Your task to perform on an android device: toggle show notifications on the lock screen Image 0: 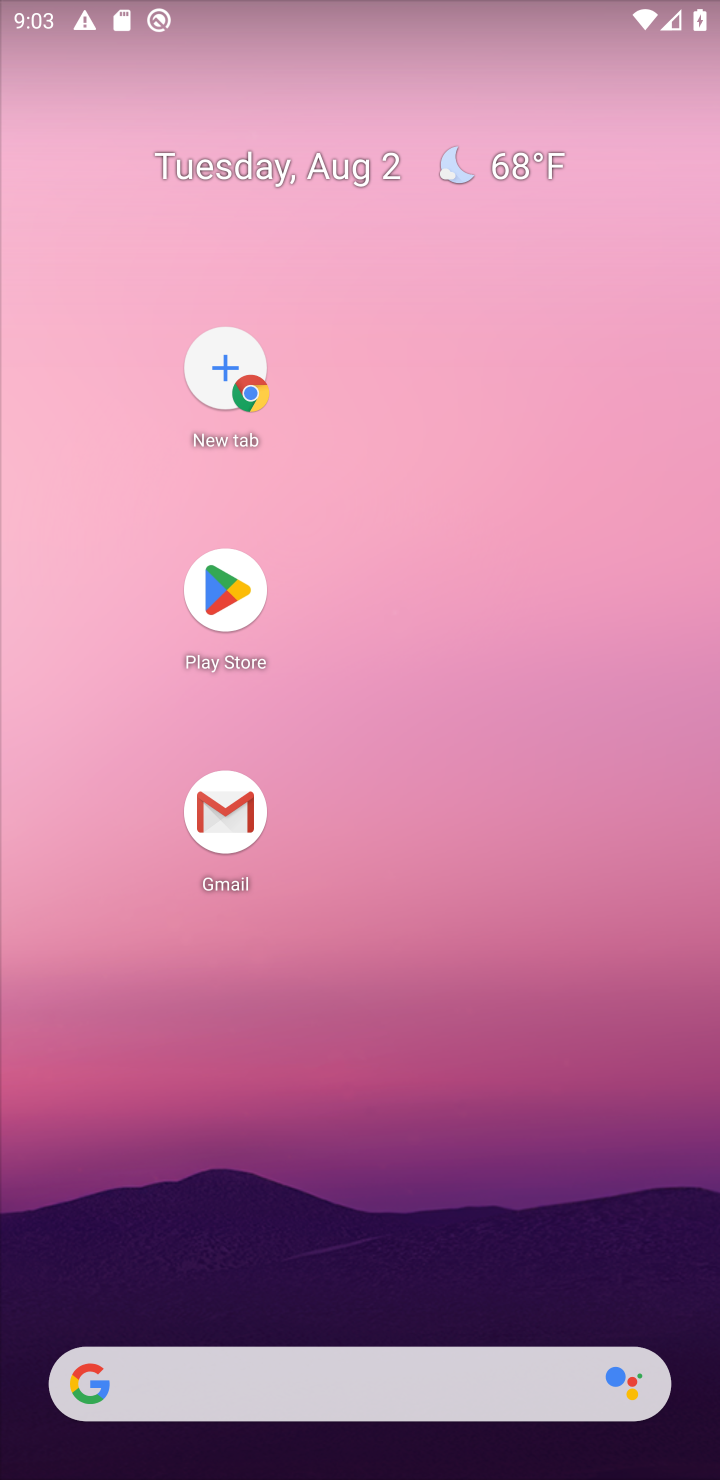
Step 0: drag from (309, 1147) to (232, 648)
Your task to perform on an android device: toggle show notifications on the lock screen Image 1: 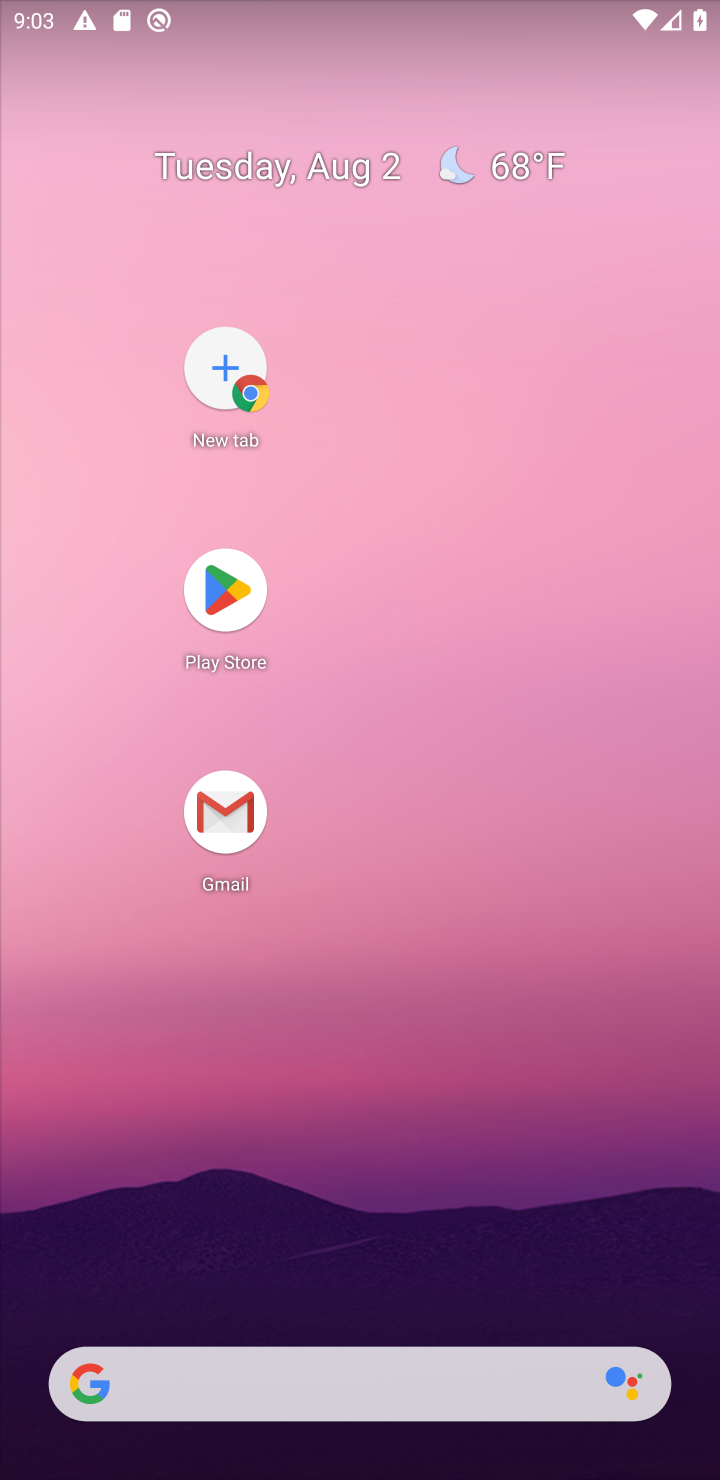
Step 1: drag from (422, 680) to (360, 367)
Your task to perform on an android device: toggle show notifications on the lock screen Image 2: 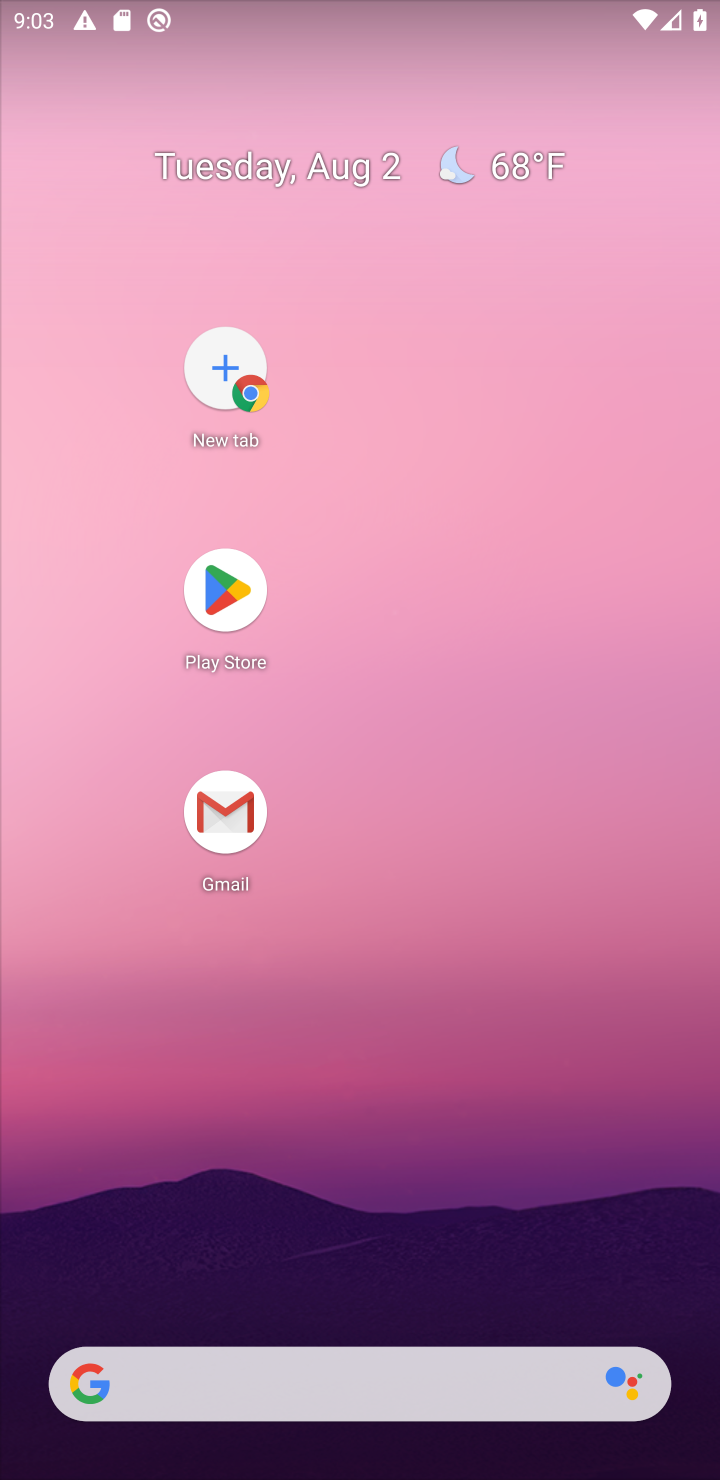
Step 2: drag from (419, 835) to (348, 335)
Your task to perform on an android device: toggle show notifications on the lock screen Image 3: 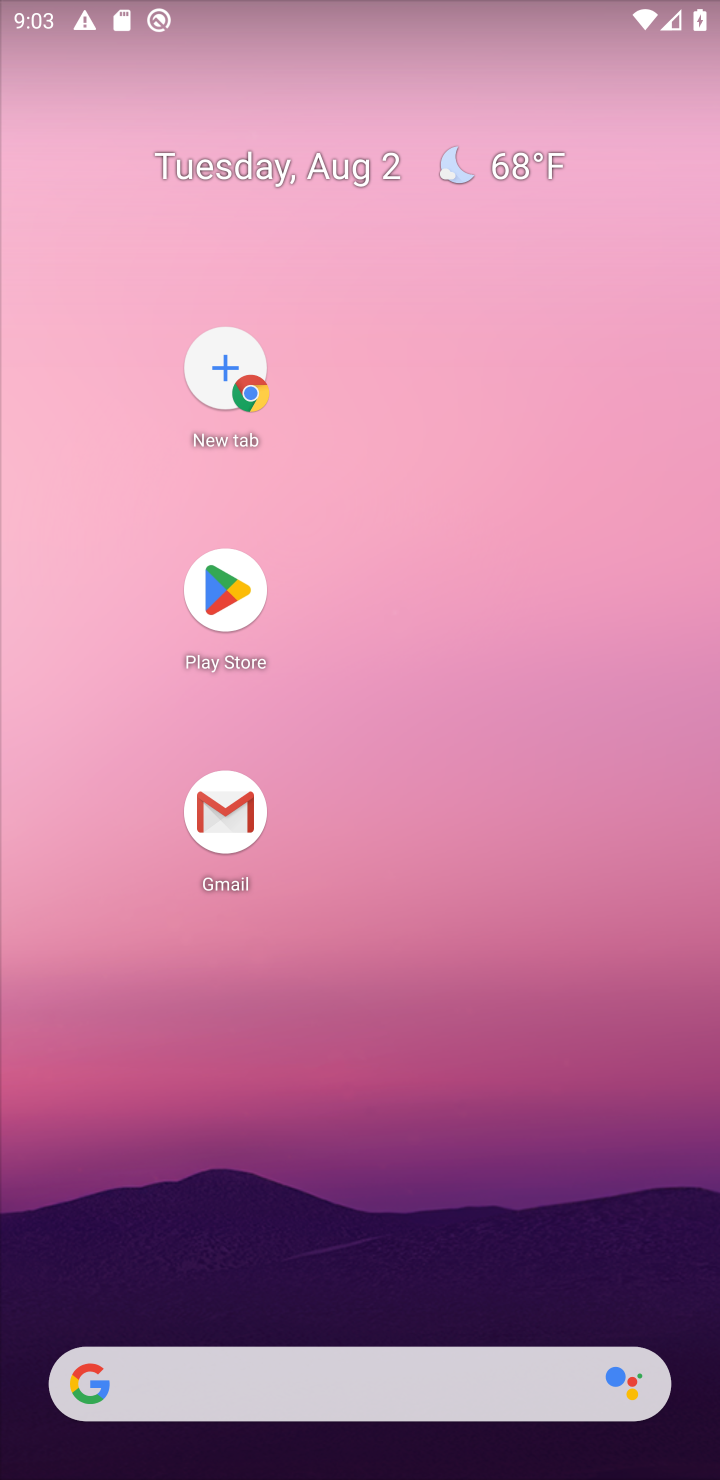
Step 3: drag from (304, 951) to (208, 607)
Your task to perform on an android device: toggle show notifications on the lock screen Image 4: 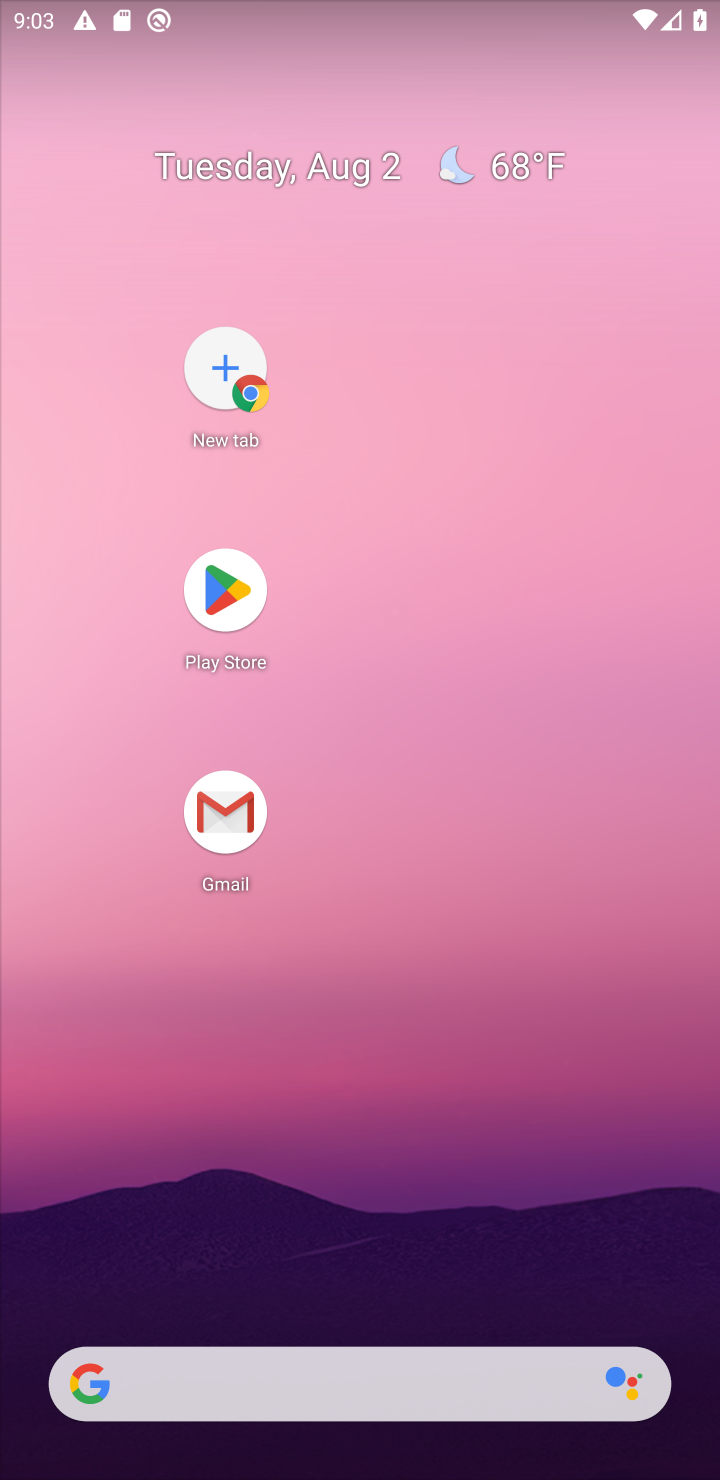
Step 4: drag from (443, 1040) to (470, 11)
Your task to perform on an android device: toggle show notifications on the lock screen Image 5: 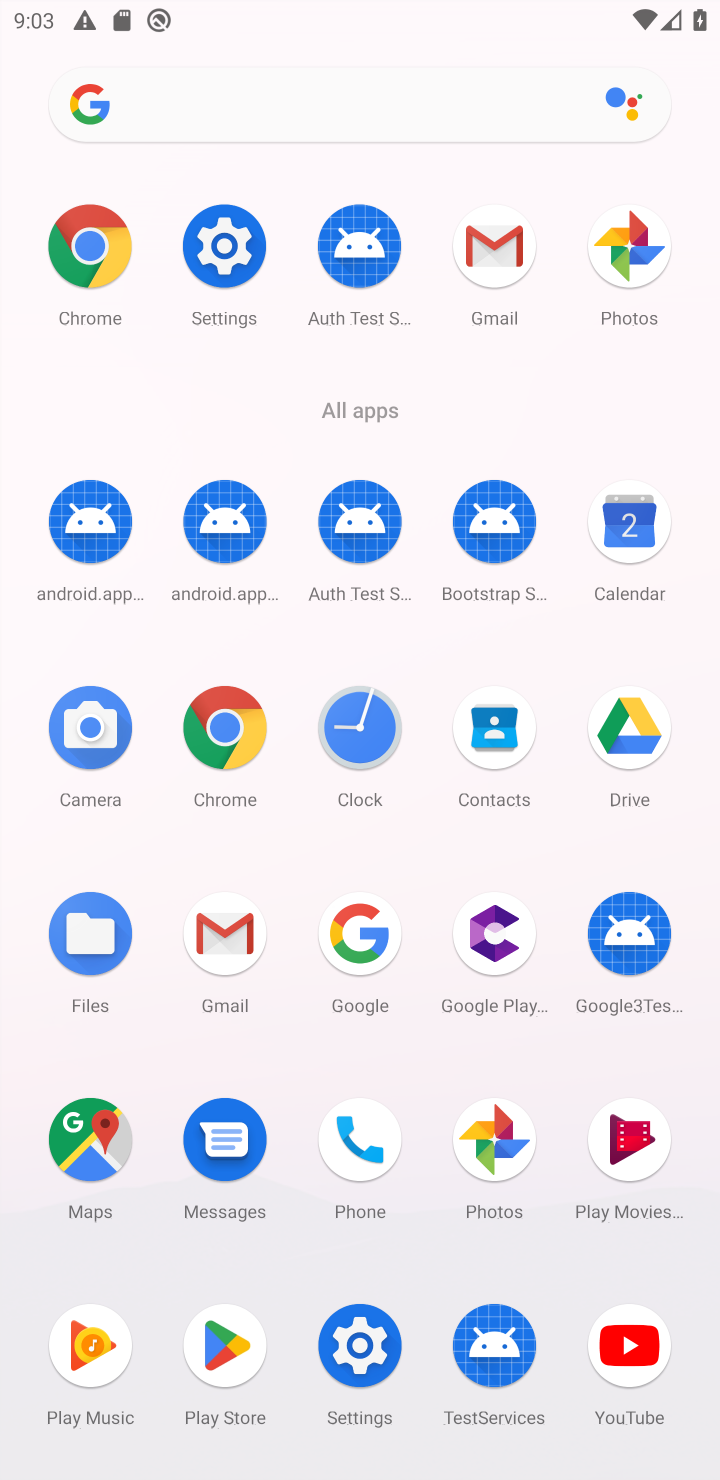
Step 5: click (221, 258)
Your task to perform on an android device: toggle show notifications on the lock screen Image 6: 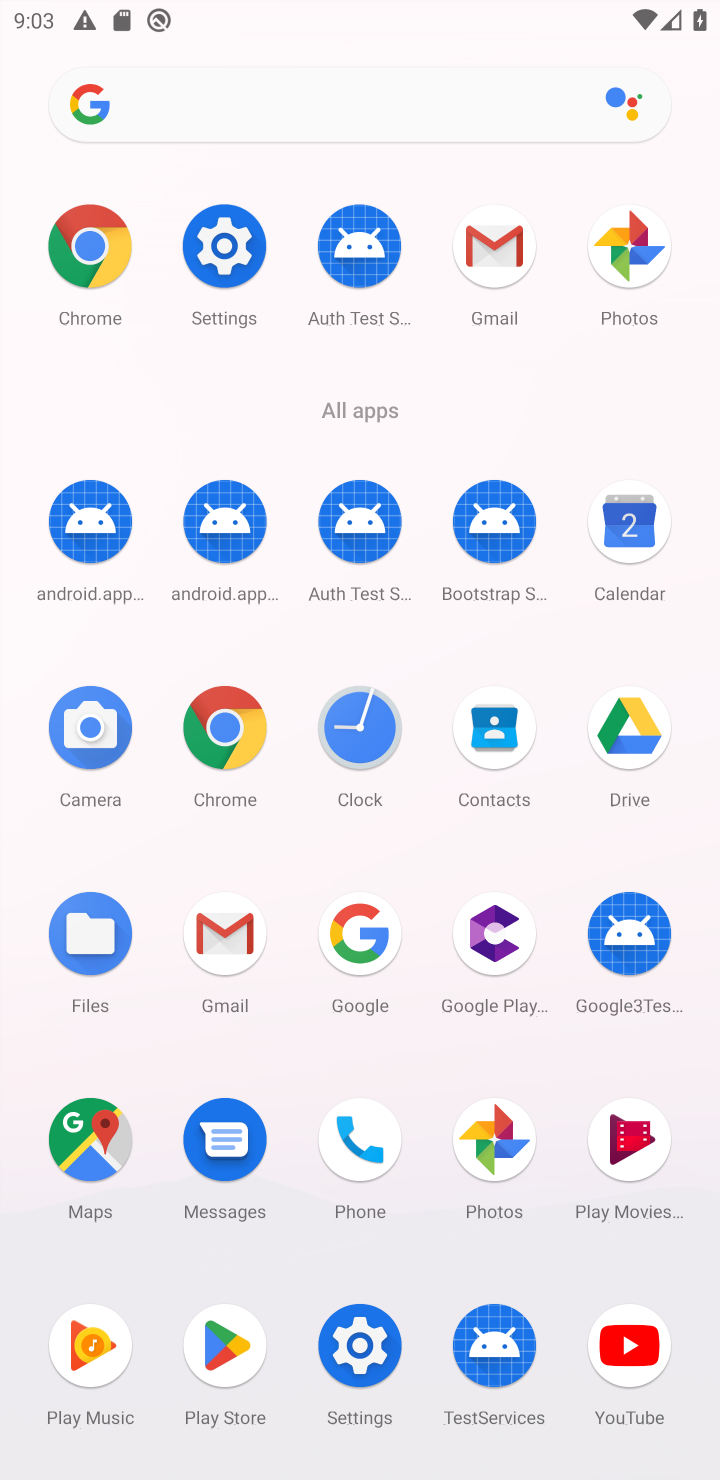
Step 6: click (220, 258)
Your task to perform on an android device: toggle show notifications on the lock screen Image 7: 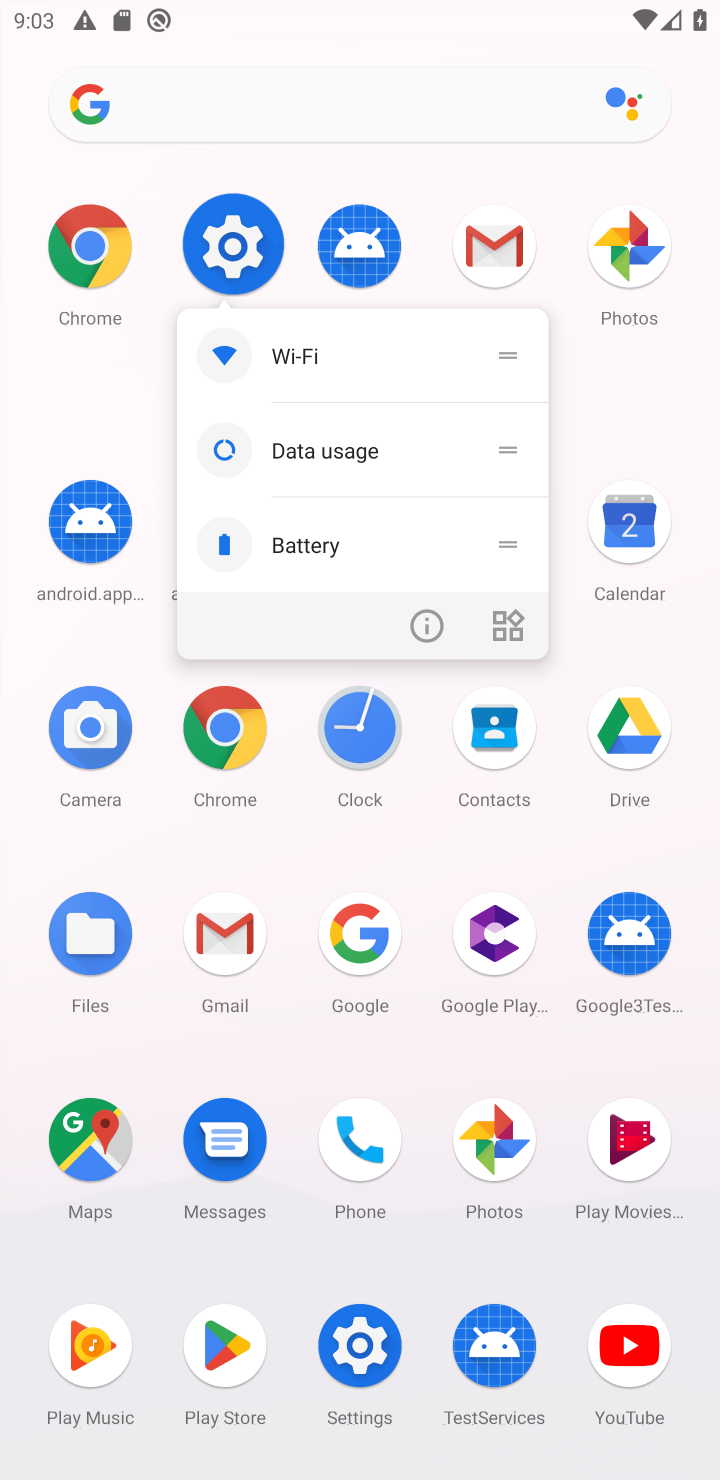
Step 7: click (229, 252)
Your task to perform on an android device: toggle show notifications on the lock screen Image 8: 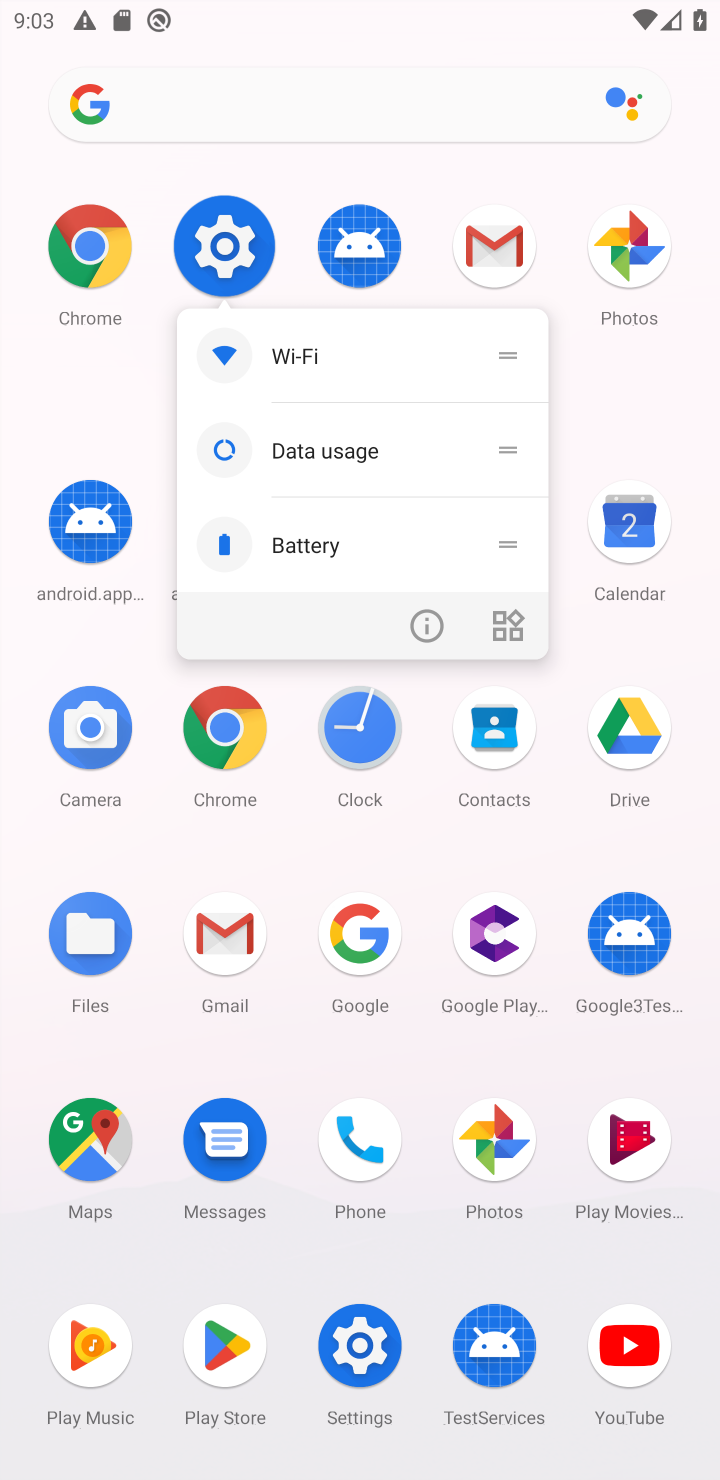
Step 8: click (235, 237)
Your task to perform on an android device: toggle show notifications on the lock screen Image 9: 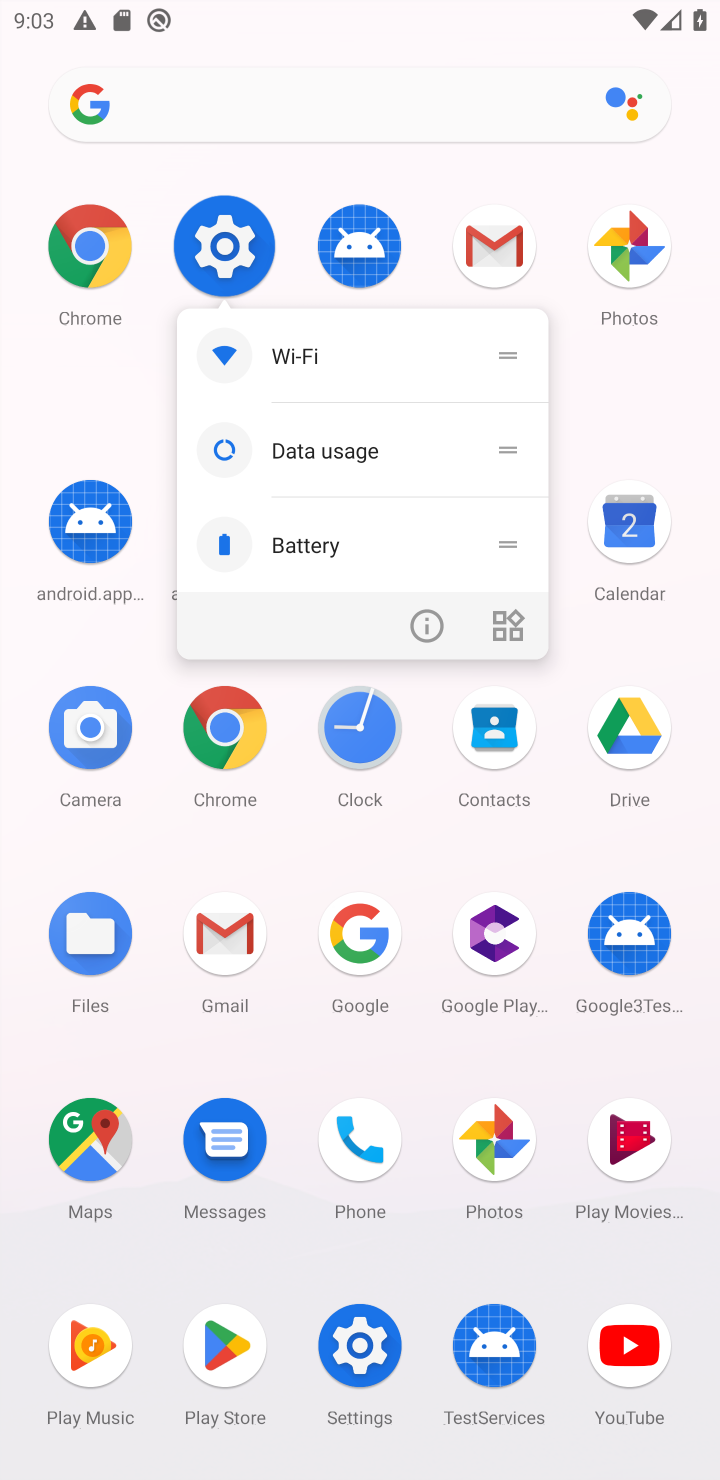
Step 9: click (235, 244)
Your task to perform on an android device: toggle show notifications on the lock screen Image 10: 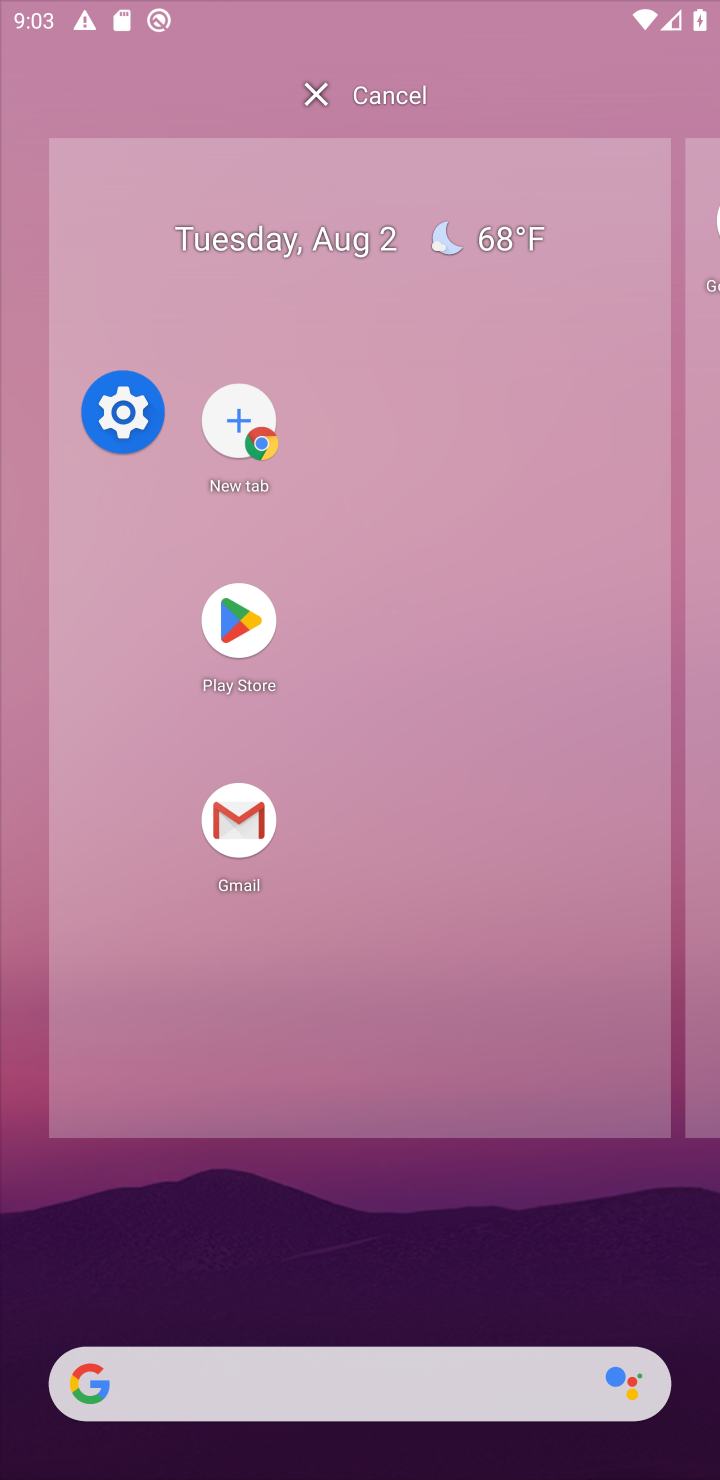
Step 10: click (235, 249)
Your task to perform on an android device: toggle show notifications on the lock screen Image 11: 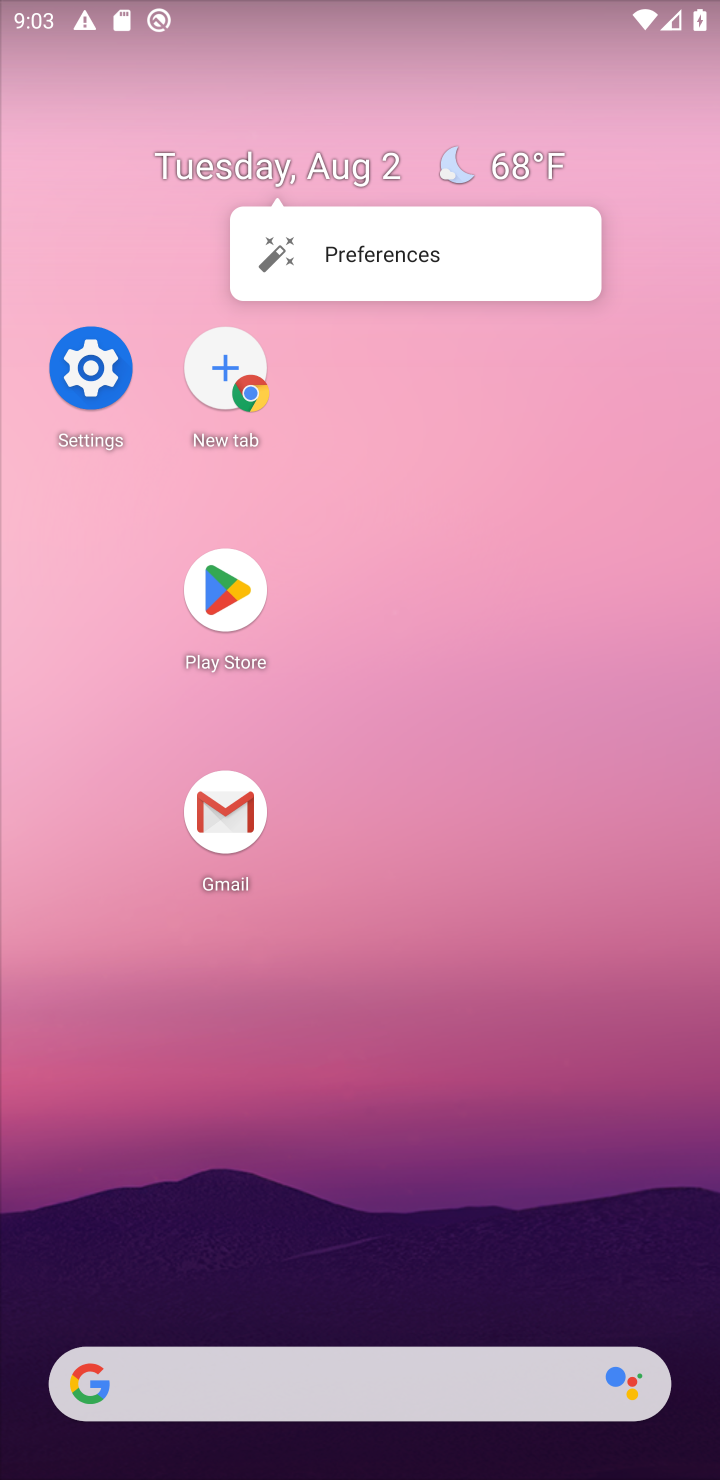
Step 11: click (92, 373)
Your task to perform on an android device: toggle show notifications on the lock screen Image 12: 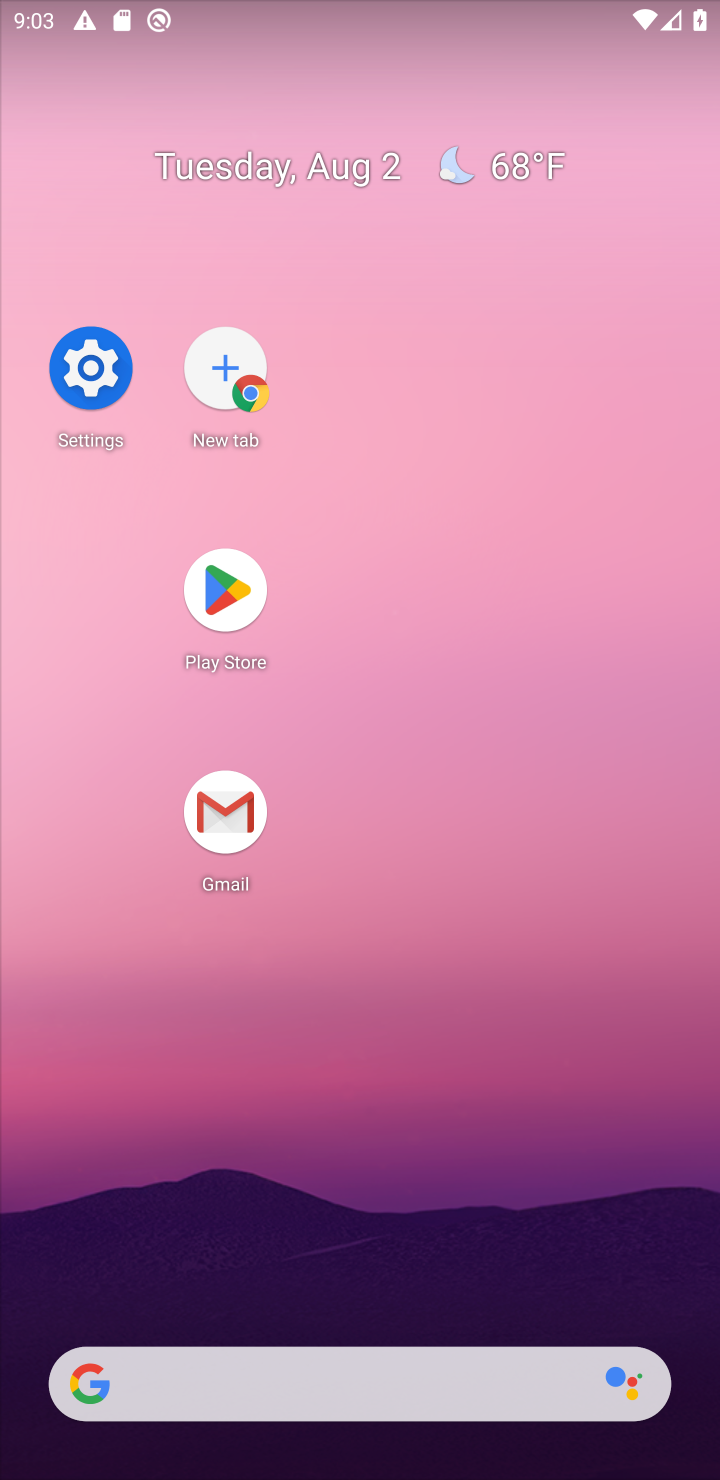
Step 12: drag from (224, 890) to (85, 287)
Your task to perform on an android device: toggle show notifications on the lock screen Image 13: 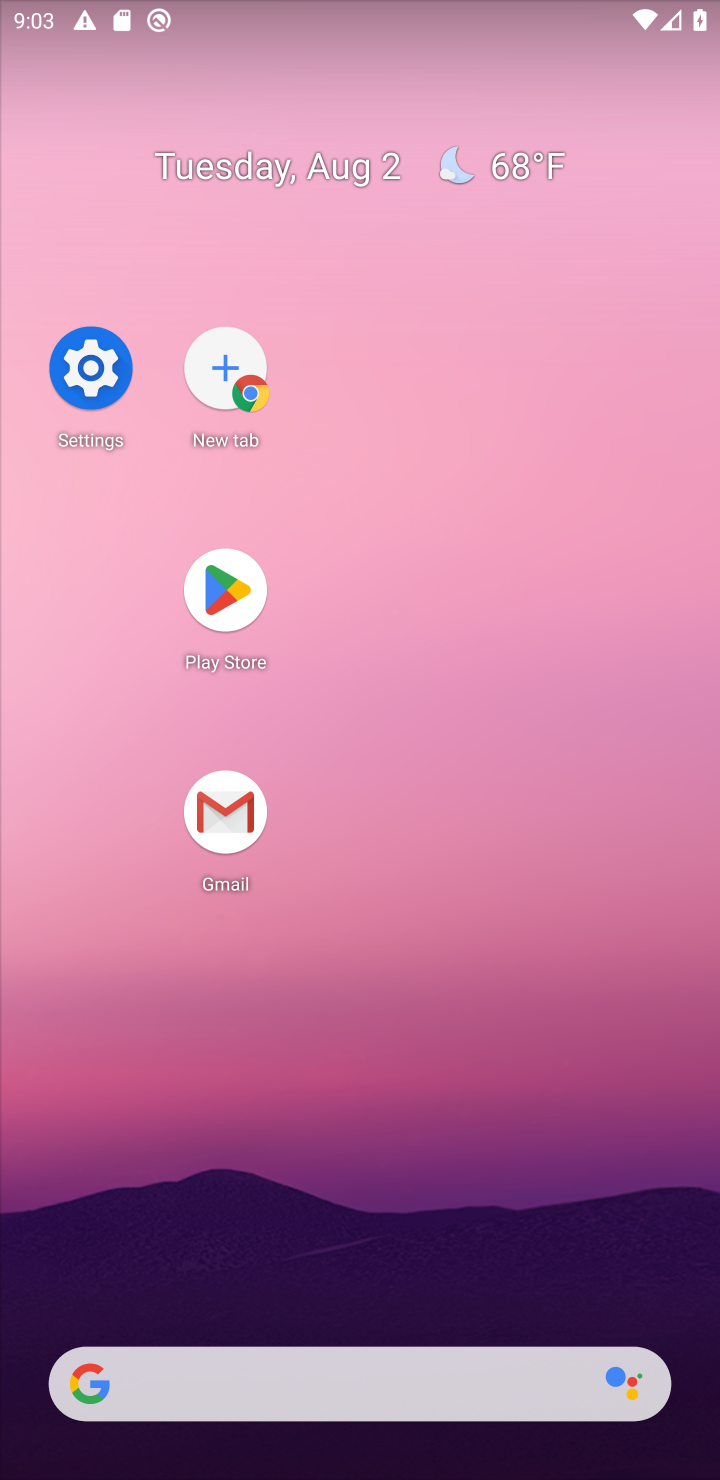
Step 13: drag from (401, 511) to (401, 380)
Your task to perform on an android device: toggle show notifications on the lock screen Image 14: 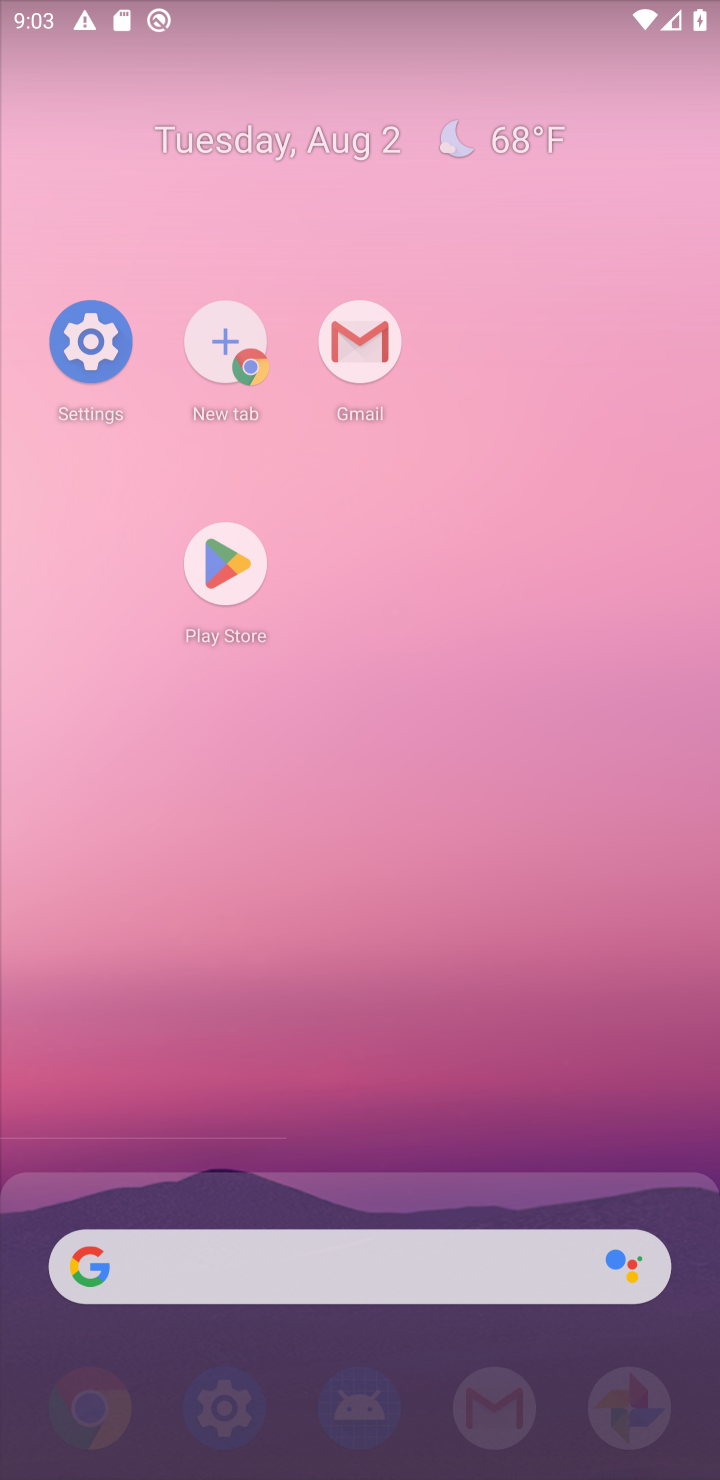
Step 14: drag from (354, 901) to (269, 36)
Your task to perform on an android device: toggle show notifications on the lock screen Image 15: 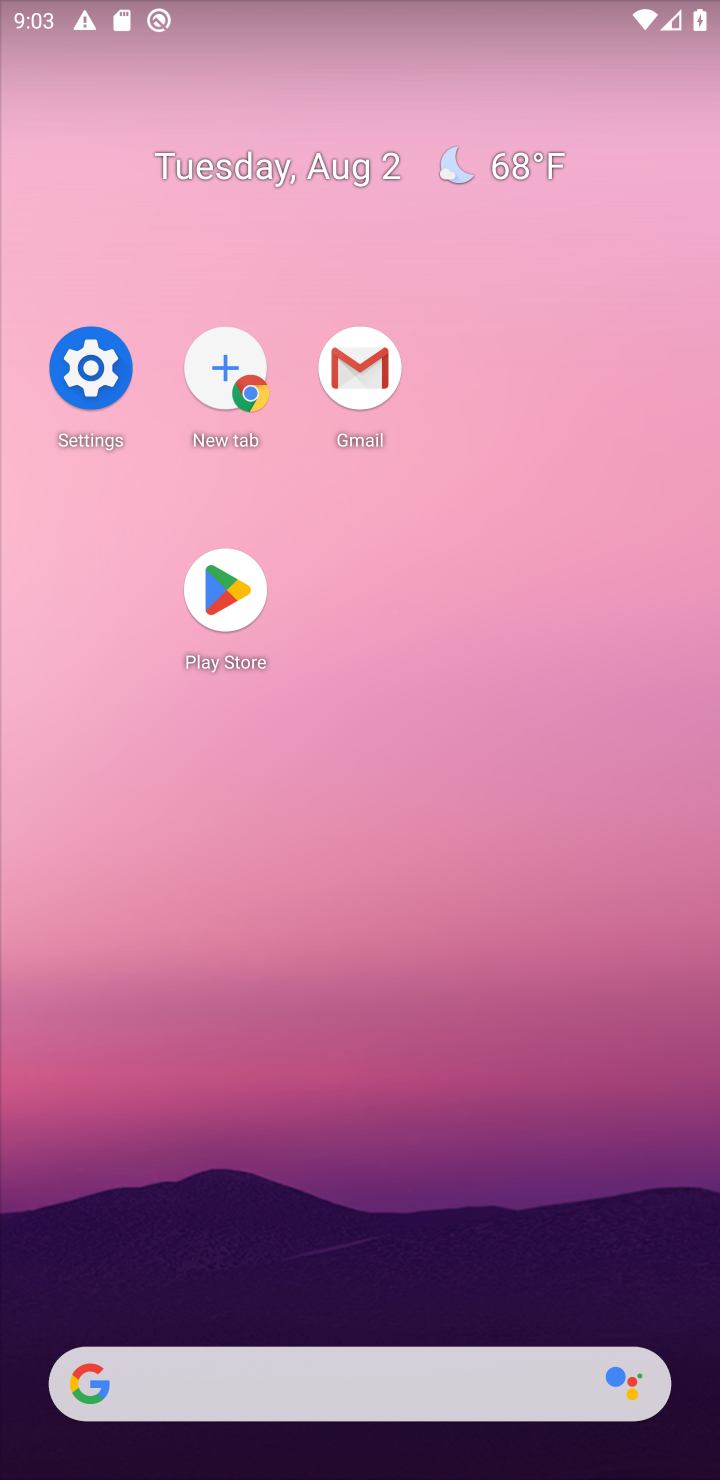
Step 15: click (407, 141)
Your task to perform on an android device: toggle show notifications on the lock screen Image 16: 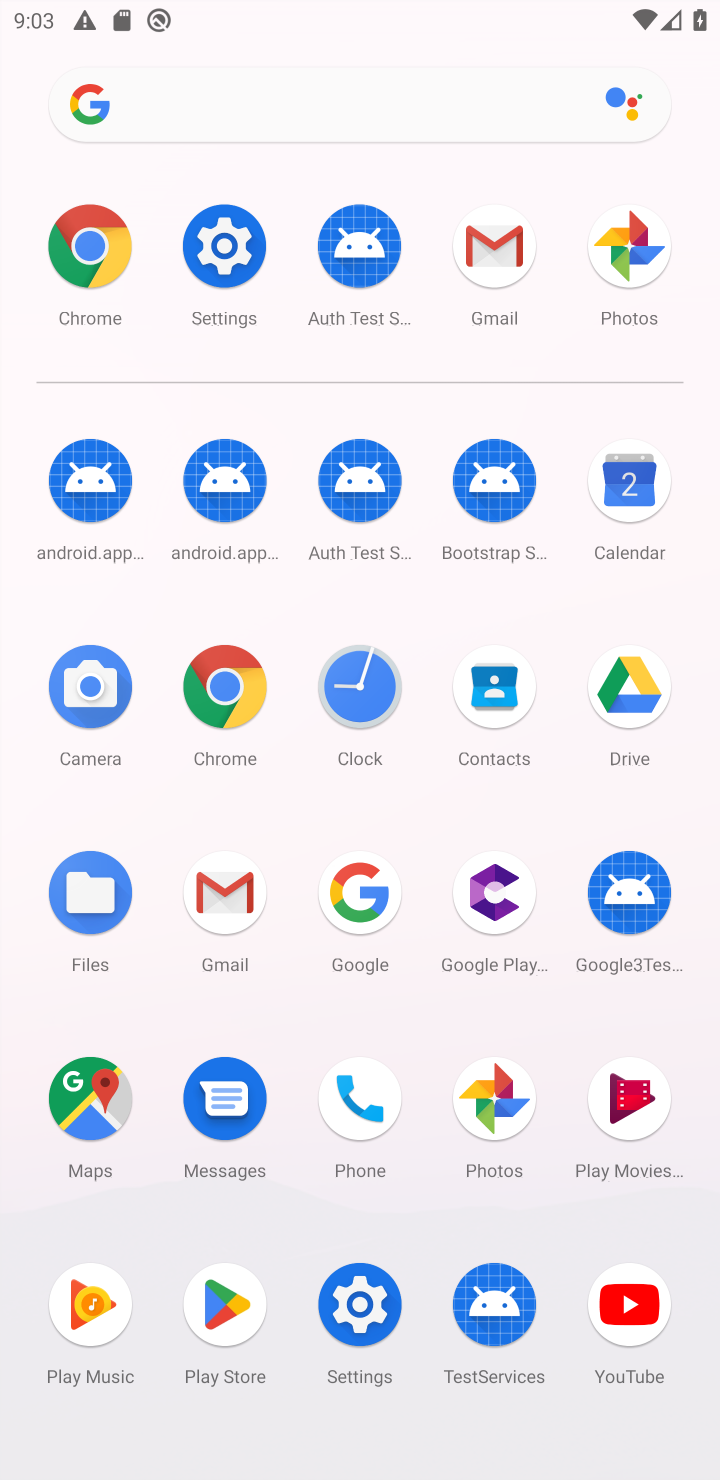
Step 16: click (225, 252)
Your task to perform on an android device: toggle show notifications on the lock screen Image 17: 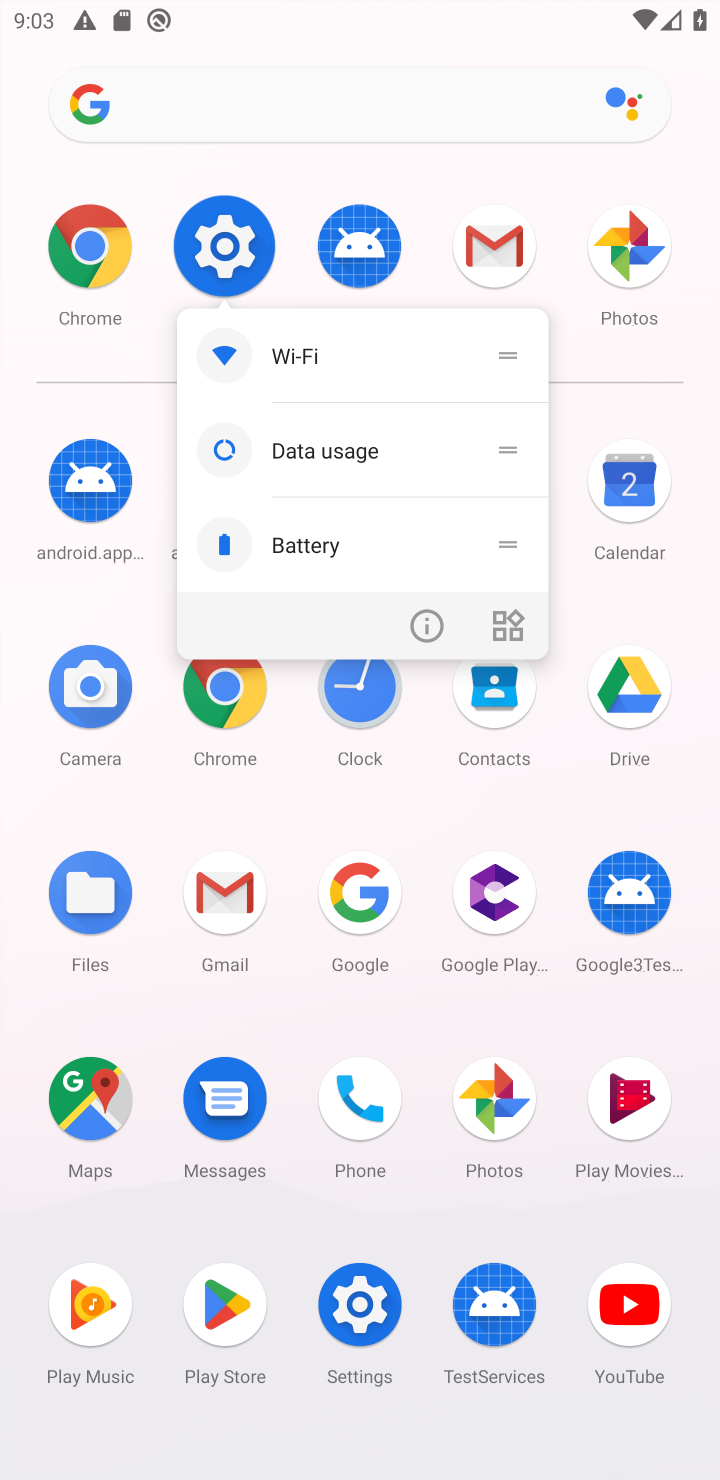
Step 17: click (225, 248)
Your task to perform on an android device: toggle show notifications on the lock screen Image 18: 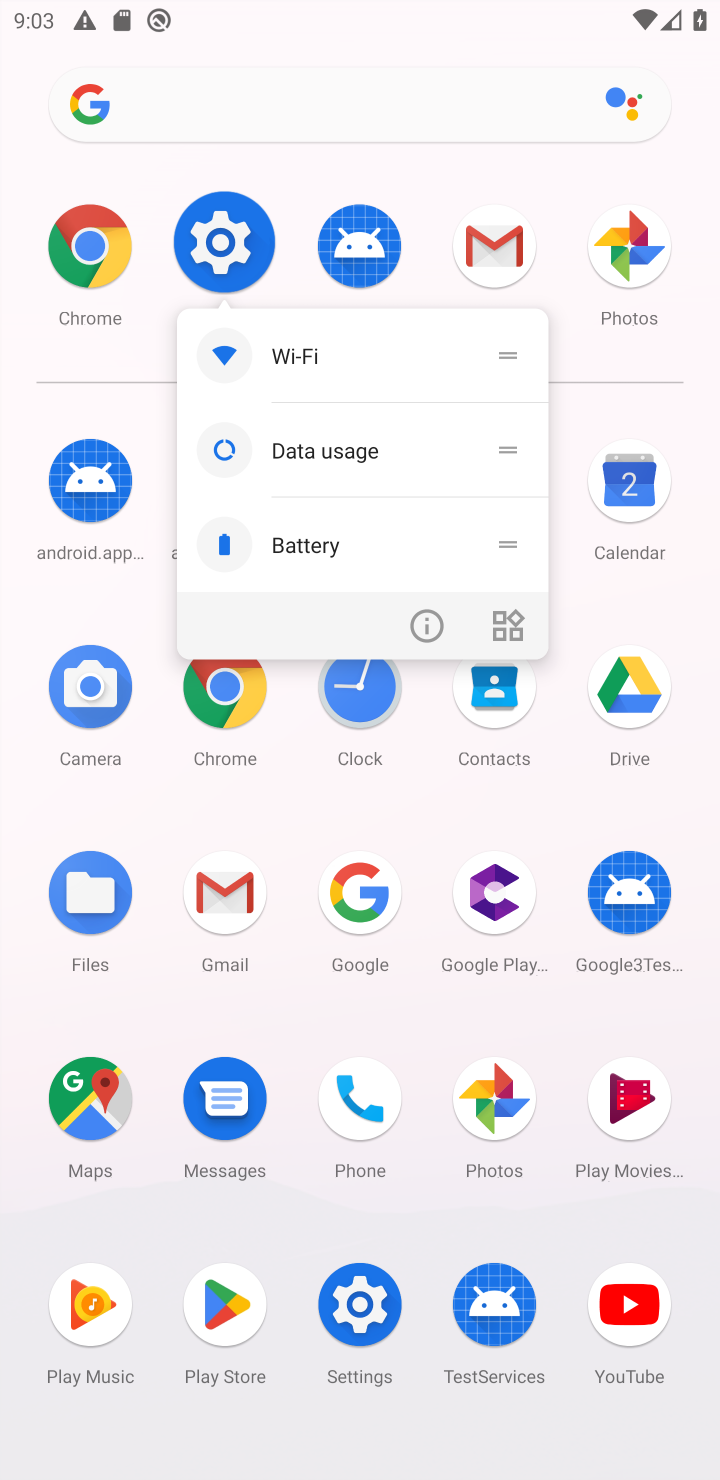
Step 18: click (304, 340)
Your task to perform on an android device: toggle show notifications on the lock screen Image 19: 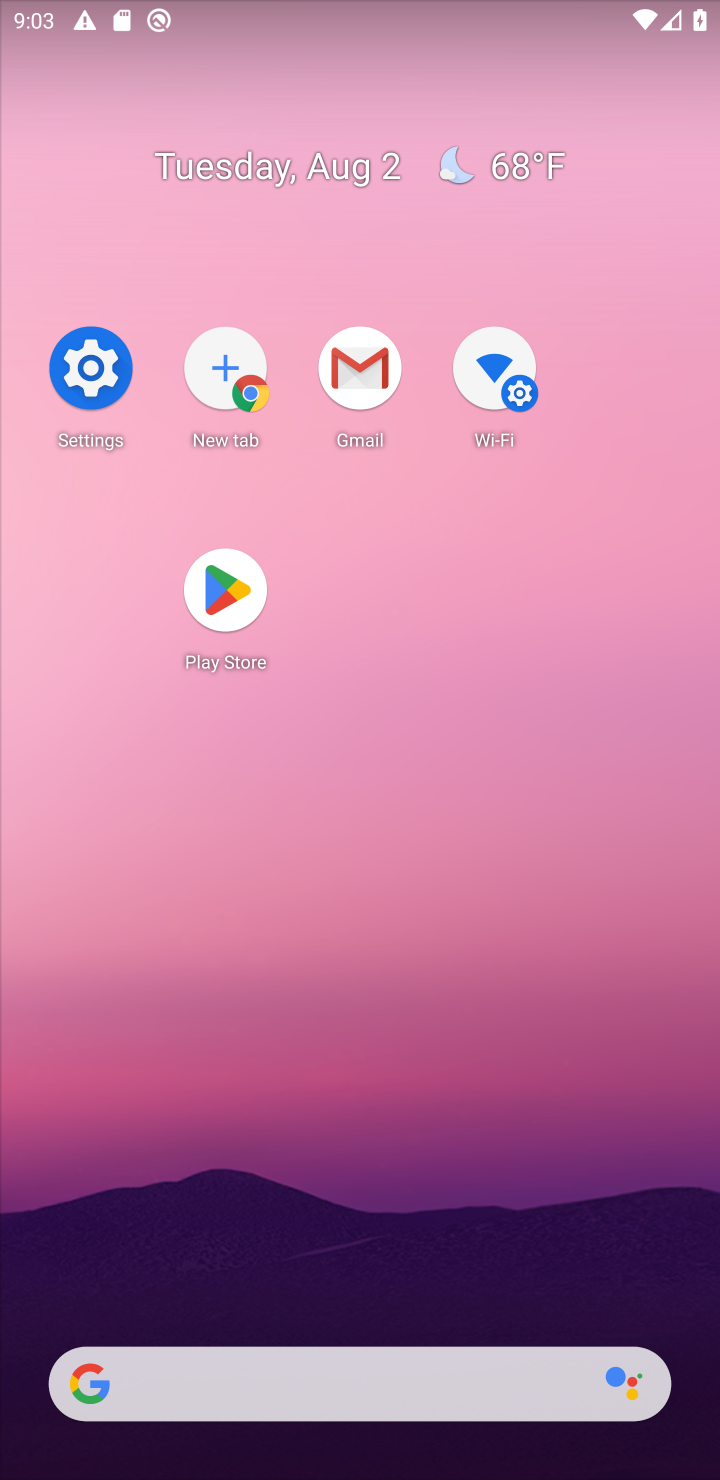
Step 19: drag from (376, 1064) to (330, 307)
Your task to perform on an android device: toggle show notifications on the lock screen Image 20: 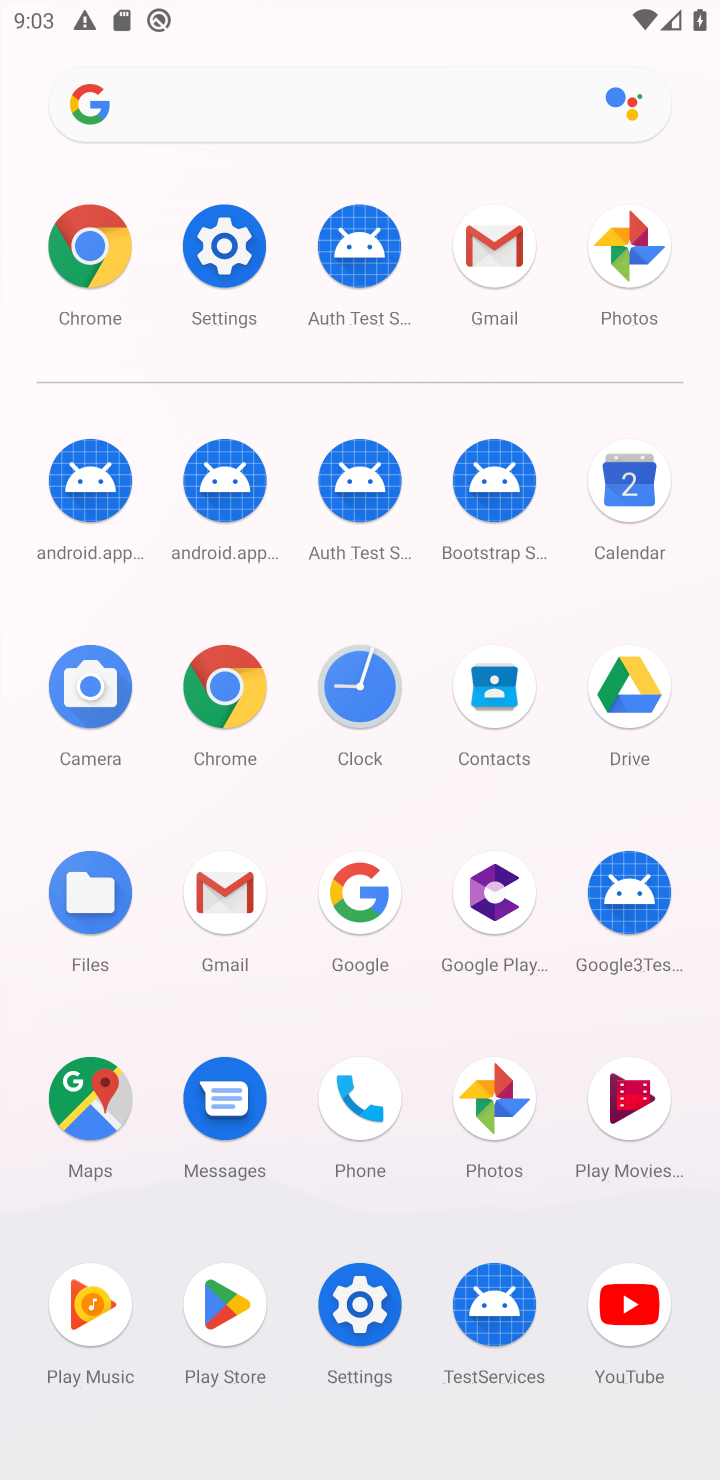
Step 20: click (239, 266)
Your task to perform on an android device: toggle show notifications on the lock screen Image 21: 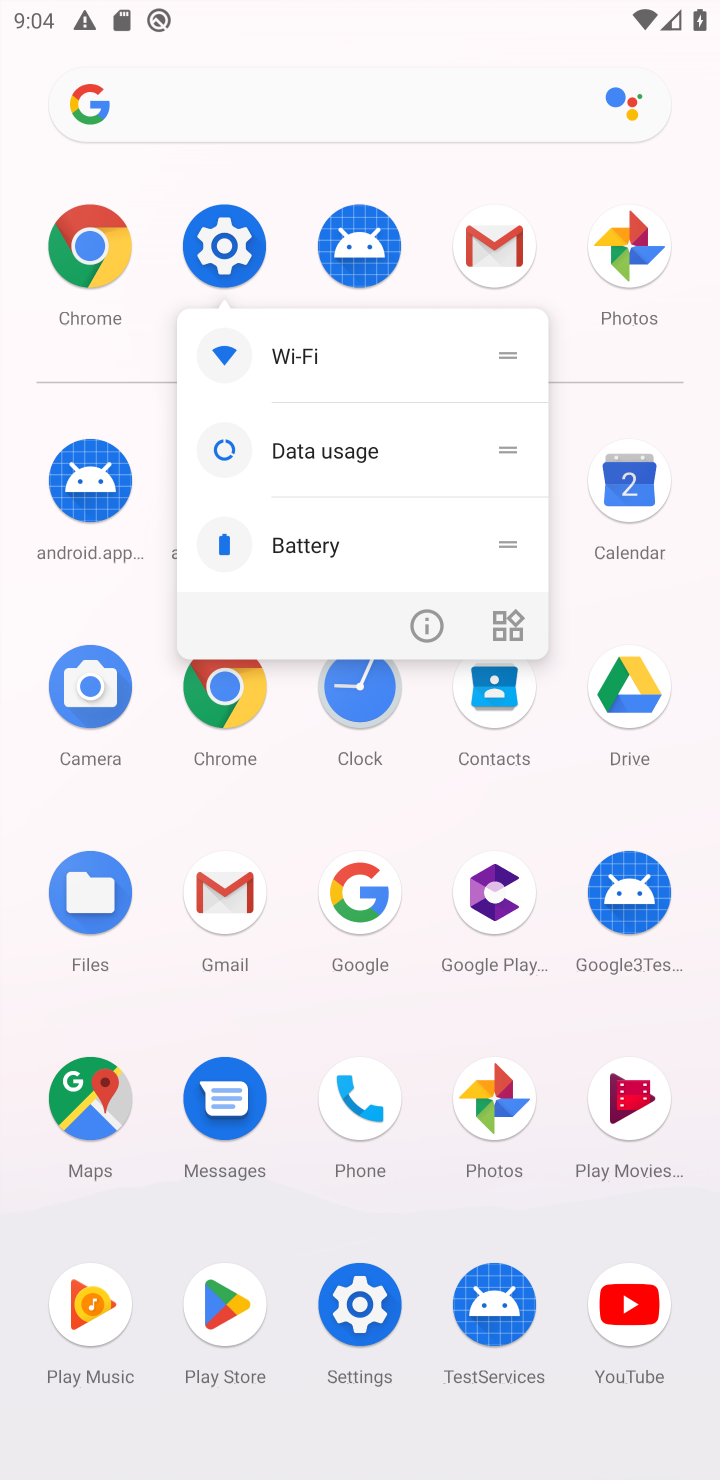
Step 21: click (239, 259)
Your task to perform on an android device: toggle show notifications on the lock screen Image 22: 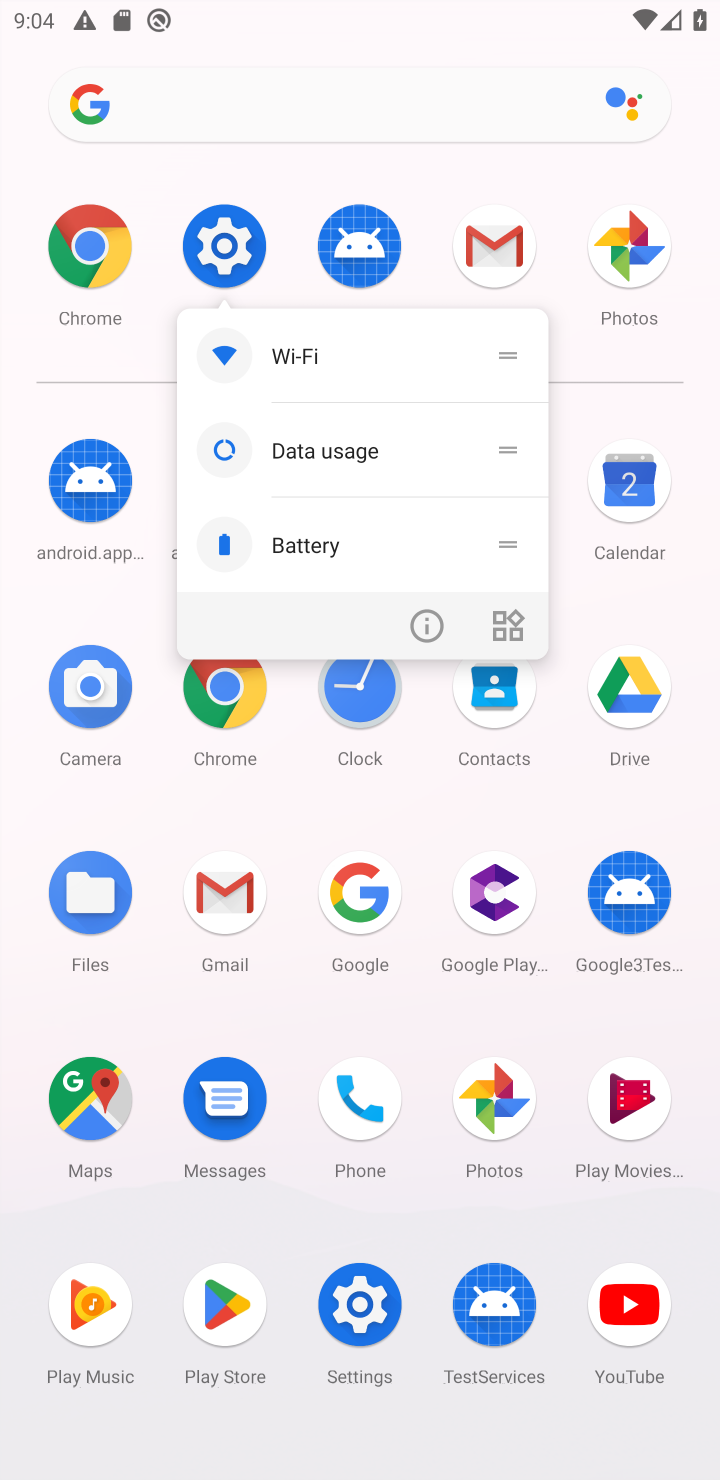
Step 22: click (240, 257)
Your task to perform on an android device: toggle show notifications on the lock screen Image 23: 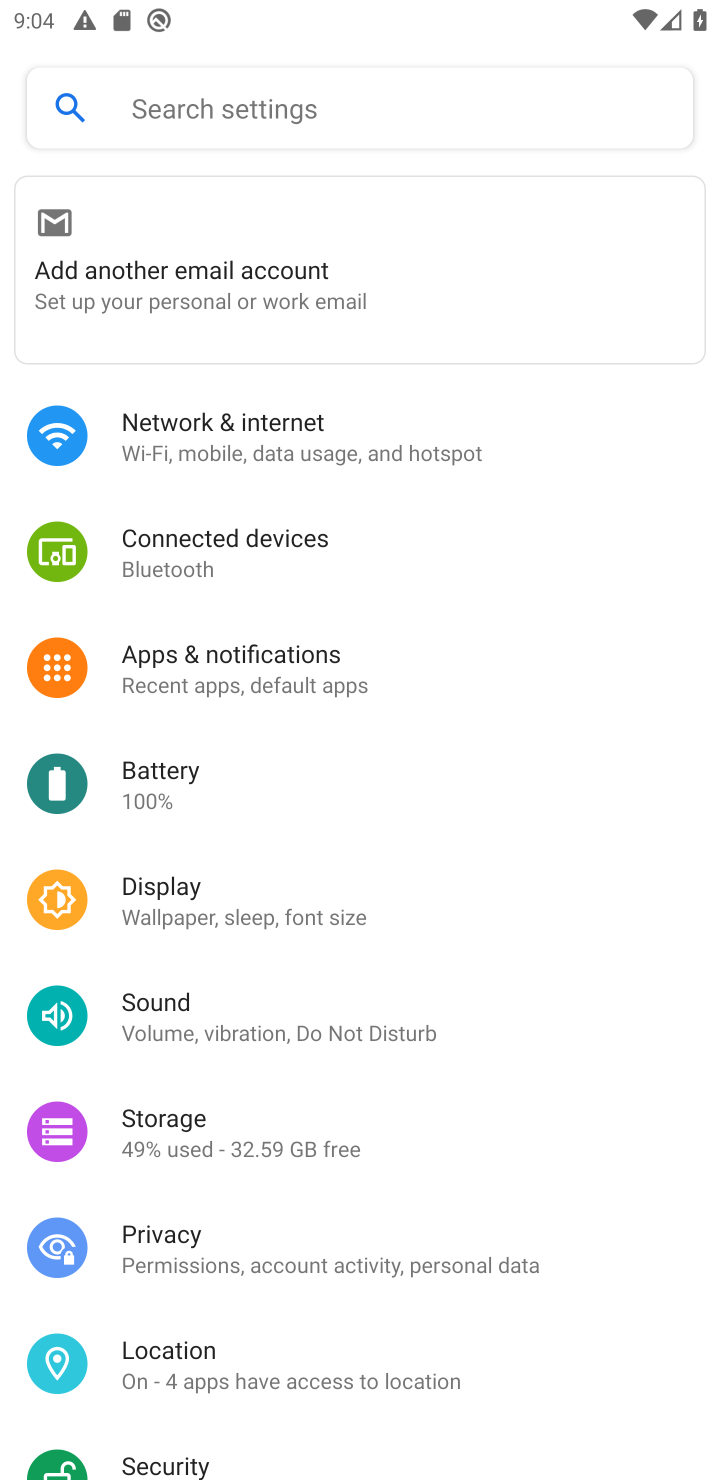
Step 23: drag from (275, 1297) to (180, 626)
Your task to perform on an android device: toggle show notifications on the lock screen Image 24: 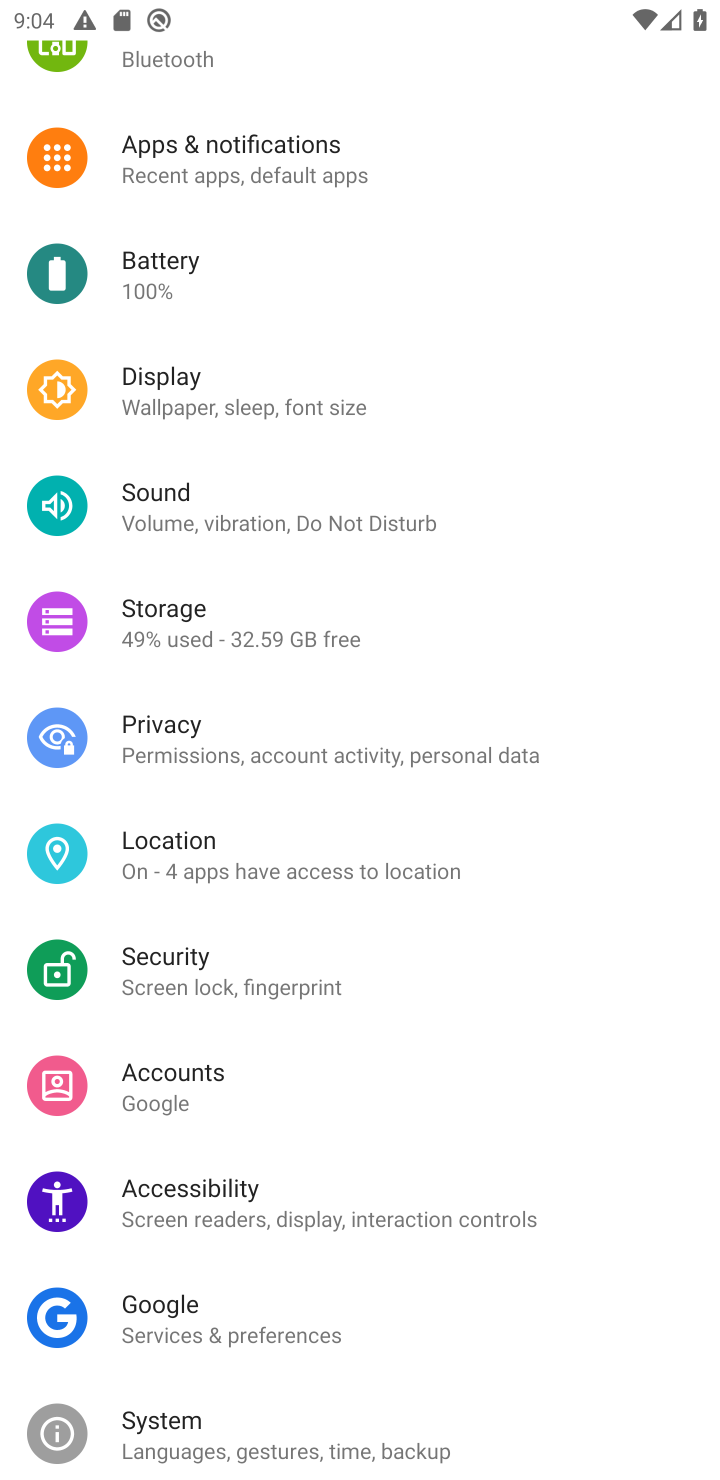
Step 24: click (216, 169)
Your task to perform on an android device: toggle show notifications on the lock screen Image 25: 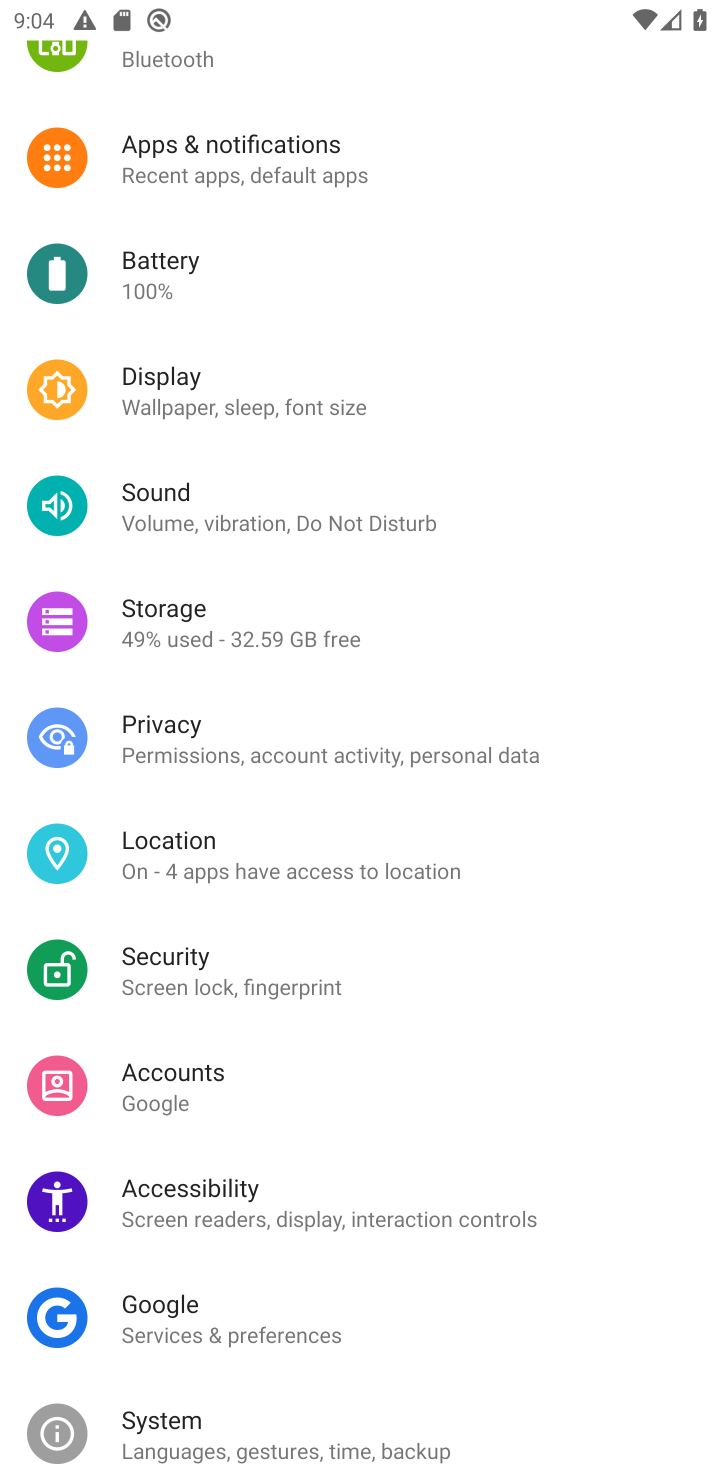
Step 25: click (218, 168)
Your task to perform on an android device: toggle show notifications on the lock screen Image 26: 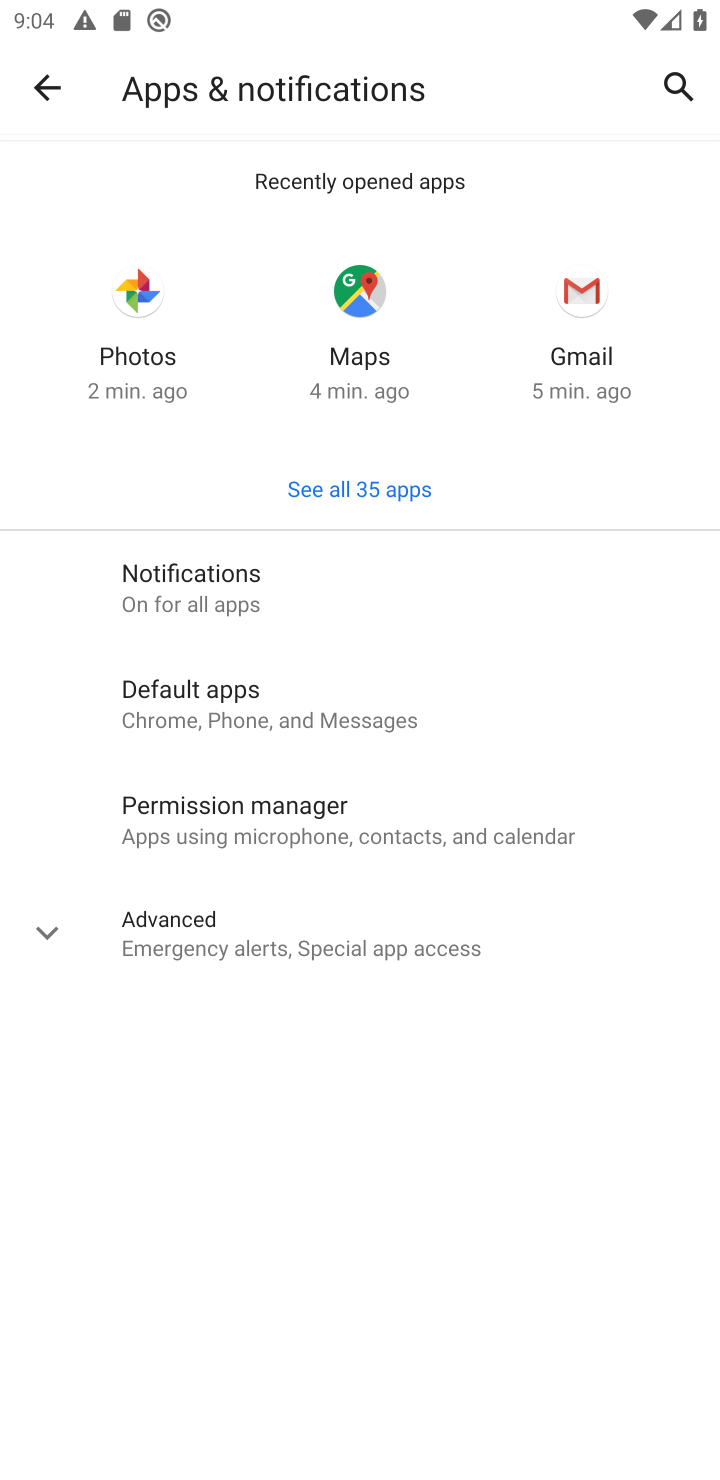
Step 26: click (195, 586)
Your task to perform on an android device: toggle show notifications on the lock screen Image 27: 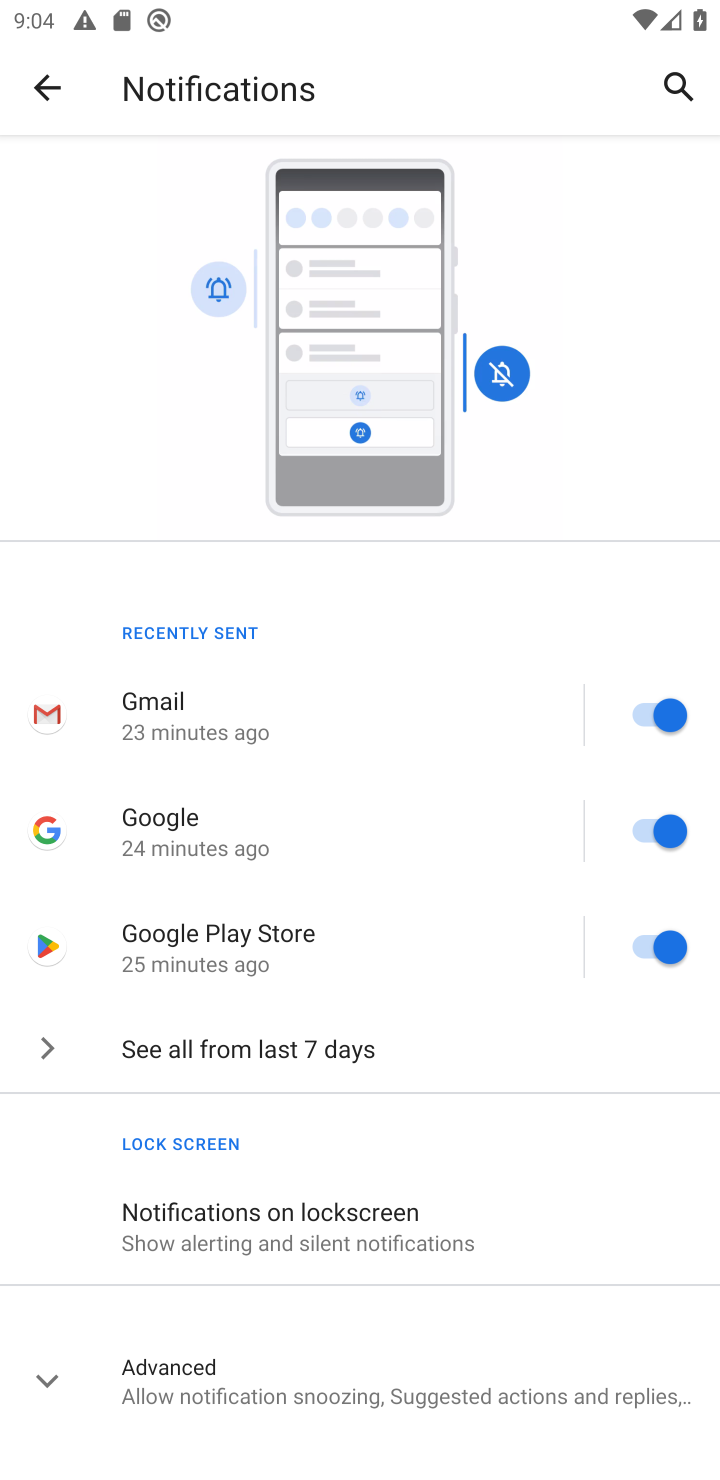
Step 27: click (258, 1240)
Your task to perform on an android device: toggle show notifications on the lock screen Image 28: 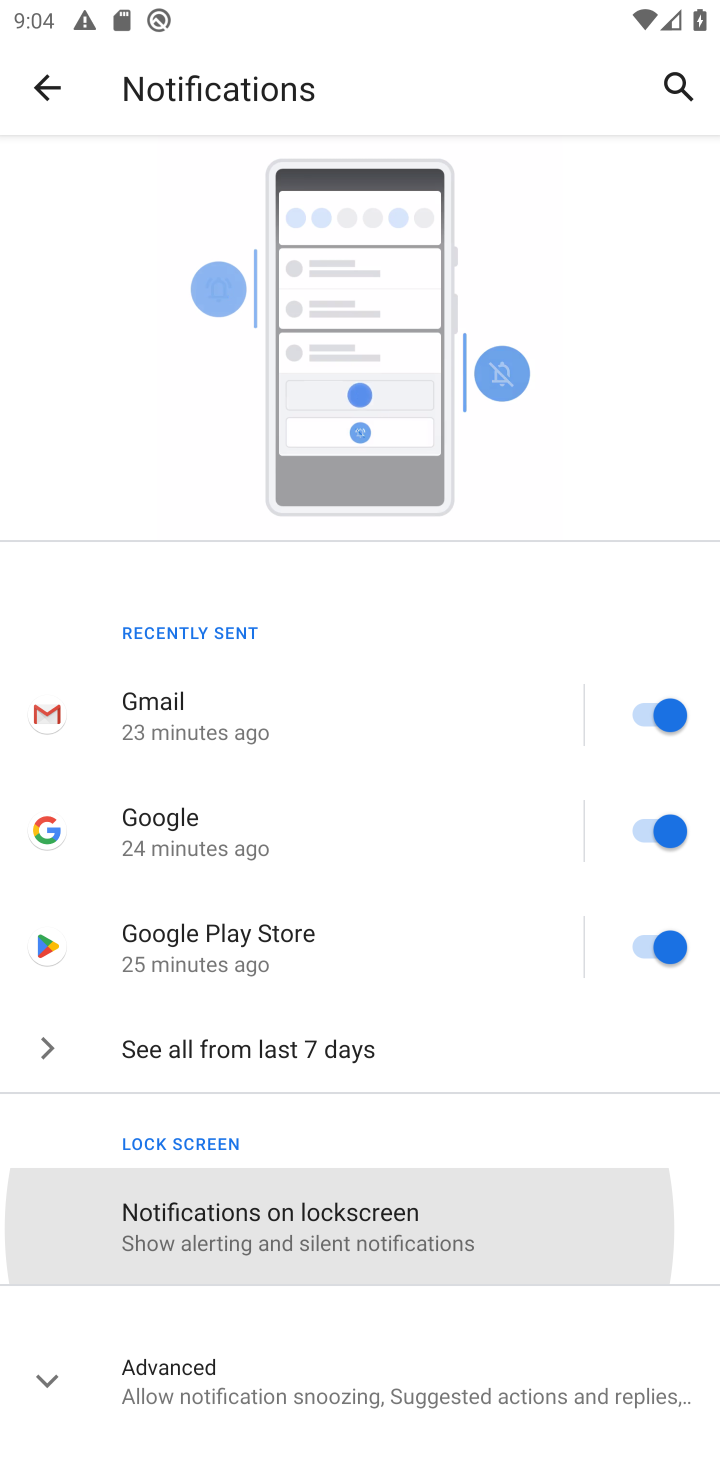
Step 28: click (258, 1240)
Your task to perform on an android device: toggle show notifications on the lock screen Image 29: 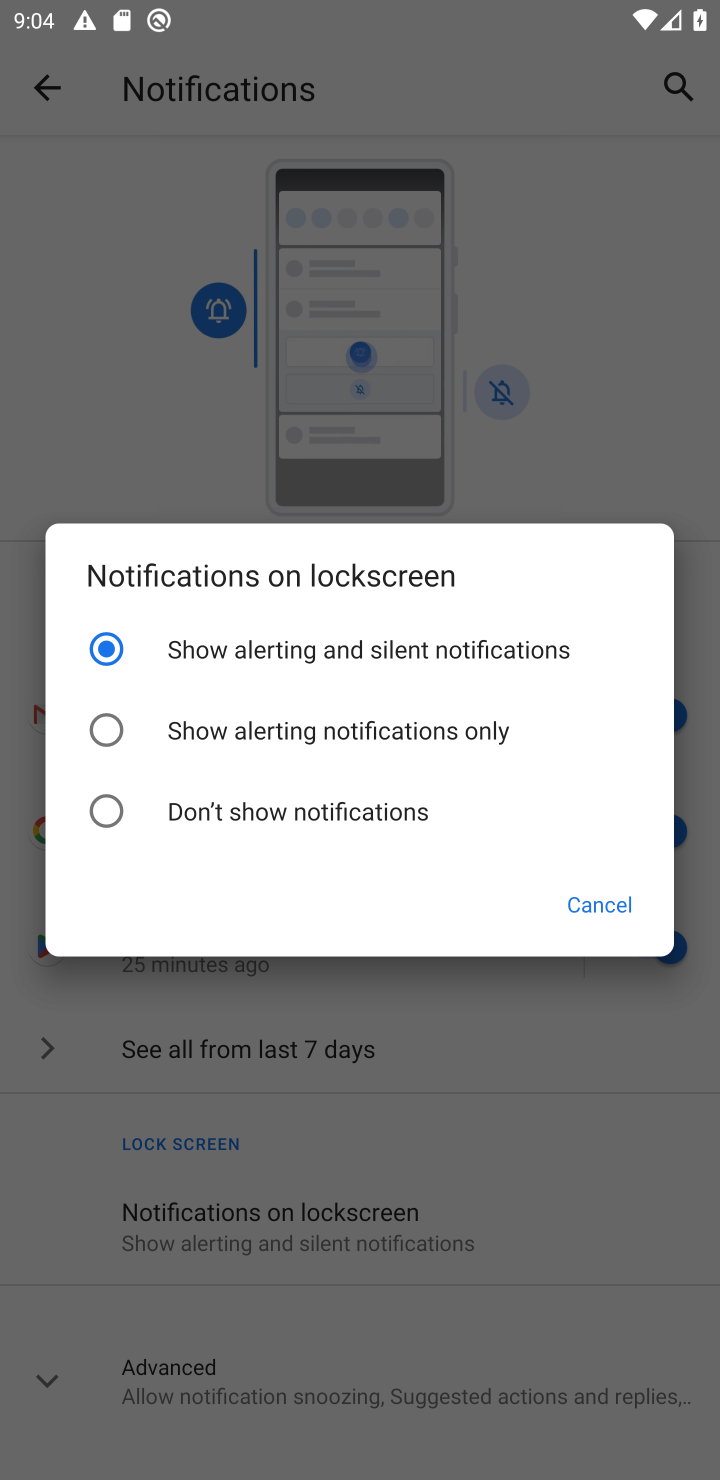
Step 29: click (594, 907)
Your task to perform on an android device: toggle show notifications on the lock screen Image 30: 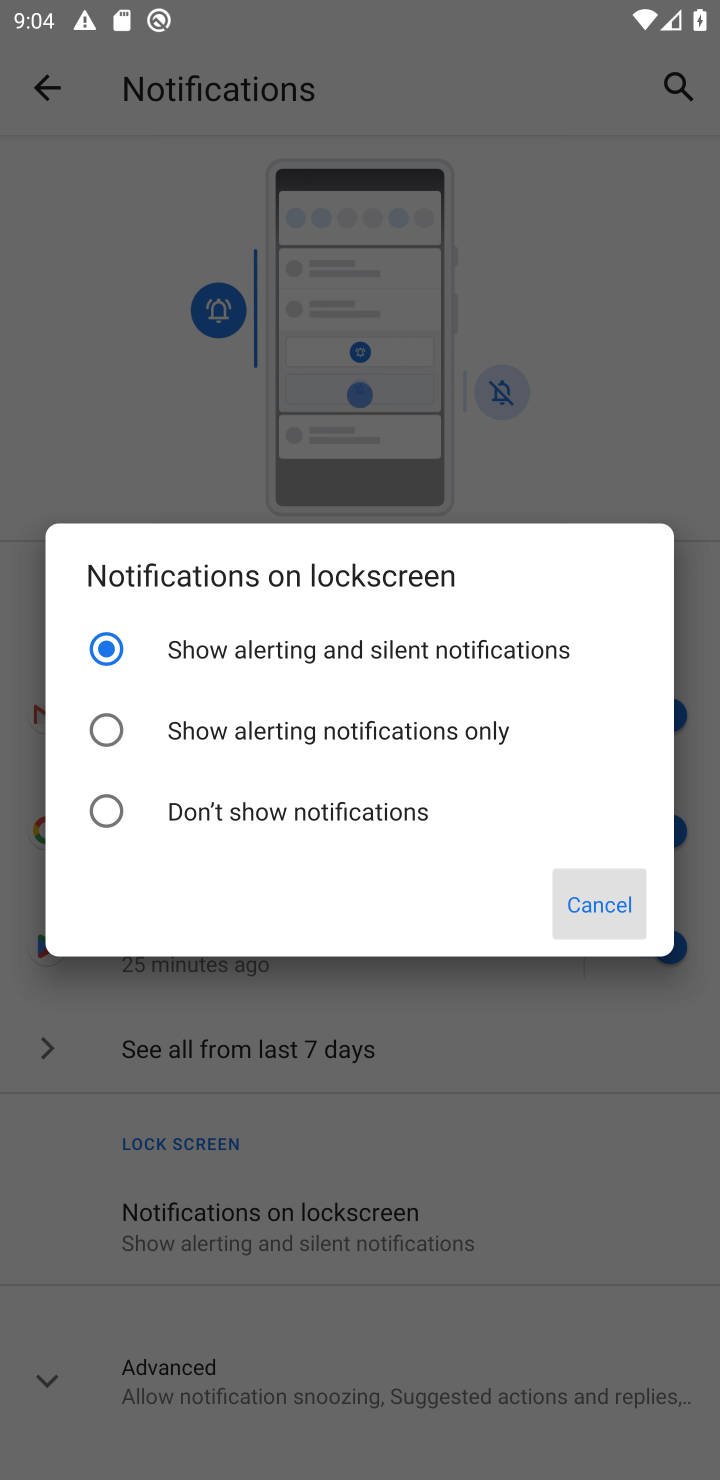
Step 30: task complete